Your task to perform on an android device: turn on sleep mode Image 0: 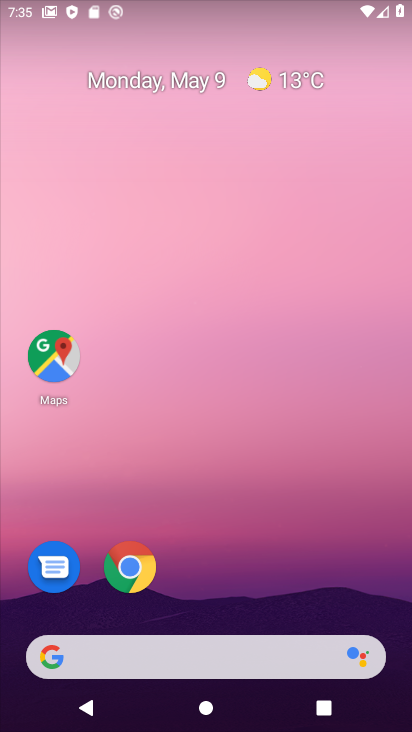
Step 0: drag from (272, 559) to (282, 7)
Your task to perform on an android device: turn on sleep mode Image 1: 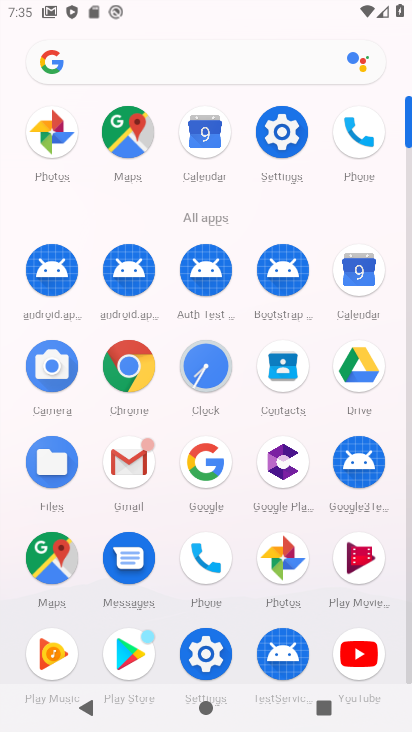
Step 1: click (284, 124)
Your task to perform on an android device: turn on sleep mode Image 2: 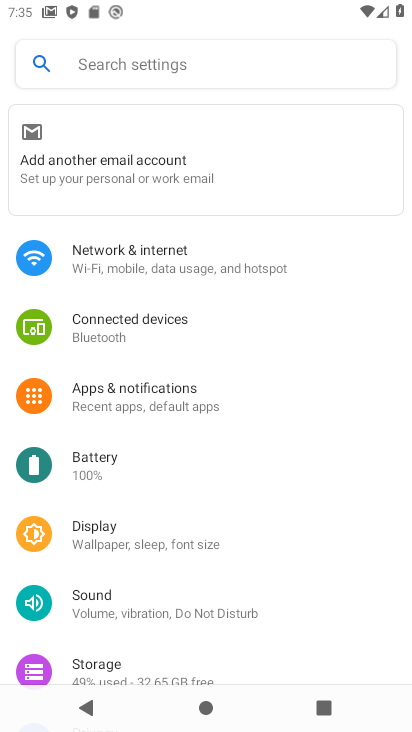
Step 2: click (130, 531)
Your task to perform on an android device: turn on sleep mode Image 3: 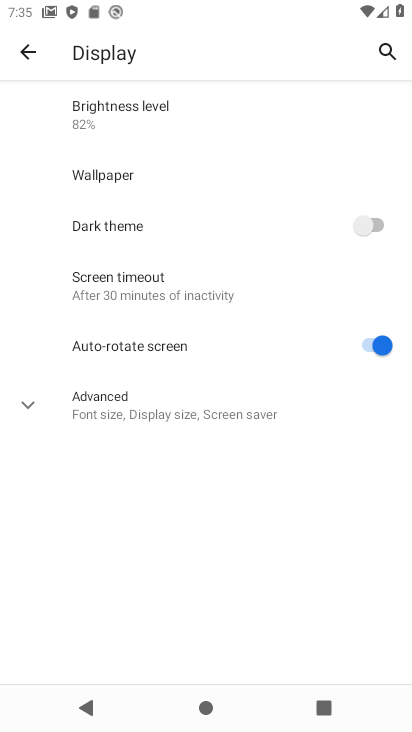
Step 3: click (25, 399)
Your task to perform on an android device: turn on sleep mode Image 4: 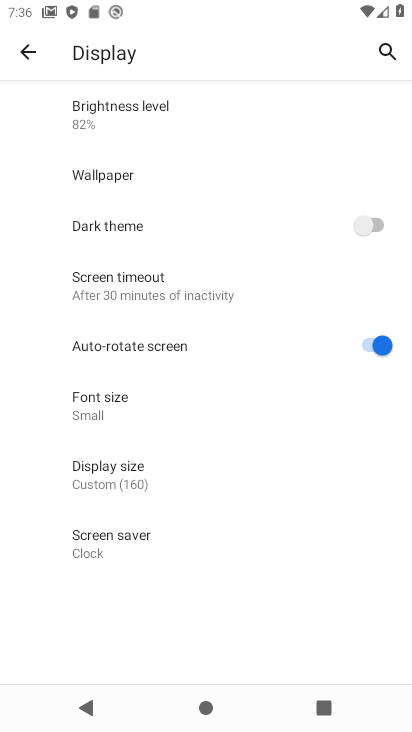
Step 4: task complete